Your task to perform on an android device: Open Google Chrome and open the bookmarks view Image 0: 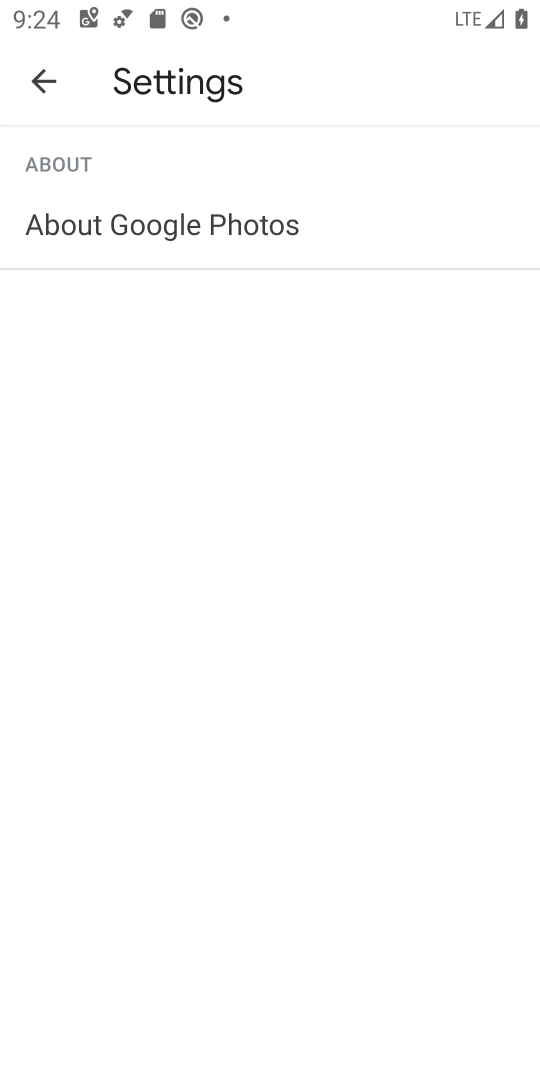
Step 0: drag from (302, 881) to (366, 250)
Your task to perform on an android device: Open Google Chrome and open the bookmarks view Image 1: 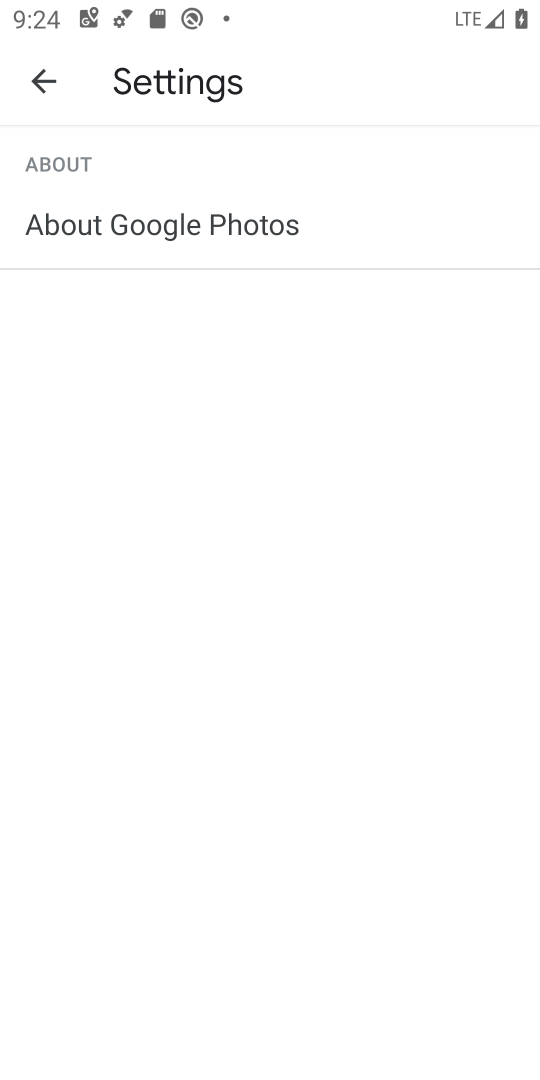
Step 1: press home button
Your task to perform on an android device: Open Google Chrome and open the bookmarks view Image 2: 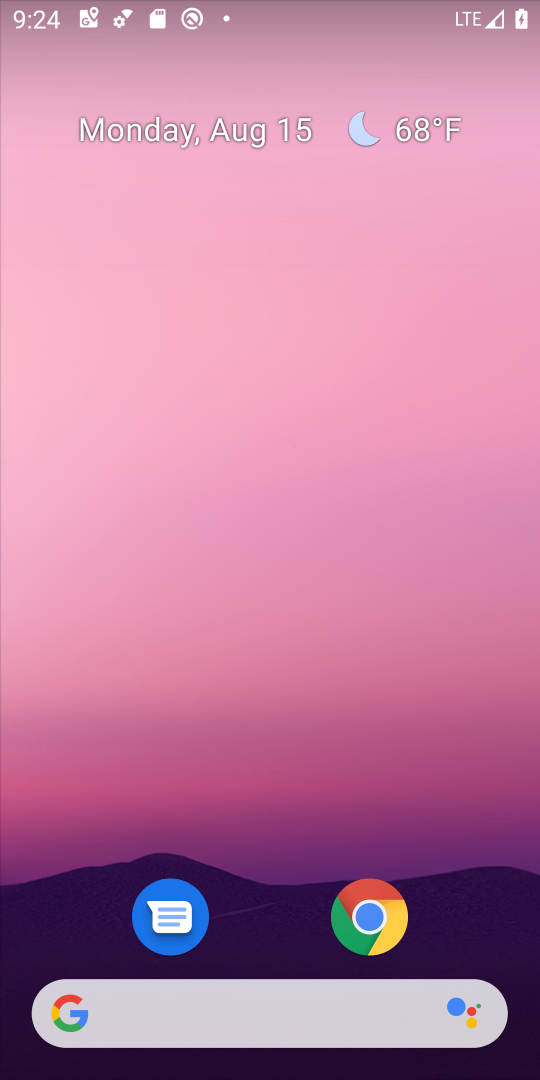
Step 2: click (376, 908)
Your task to perform on an android device: Open Google Chrome and open the bookmarks view Image 3: 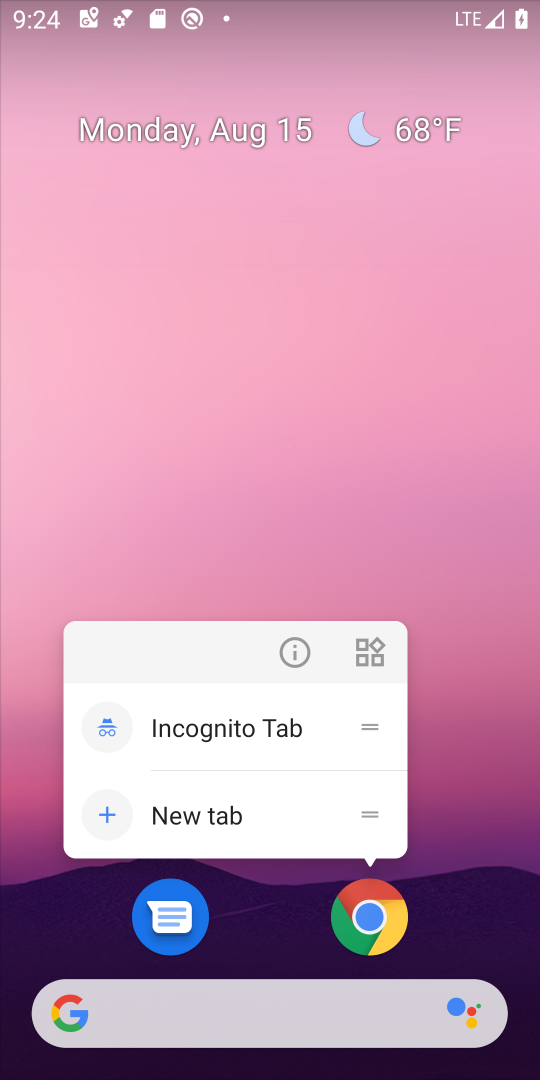
Step 3: click (378, 915)
Your task to perform on an android device: Open Google Chrome and open the bookmarks view Image 4: 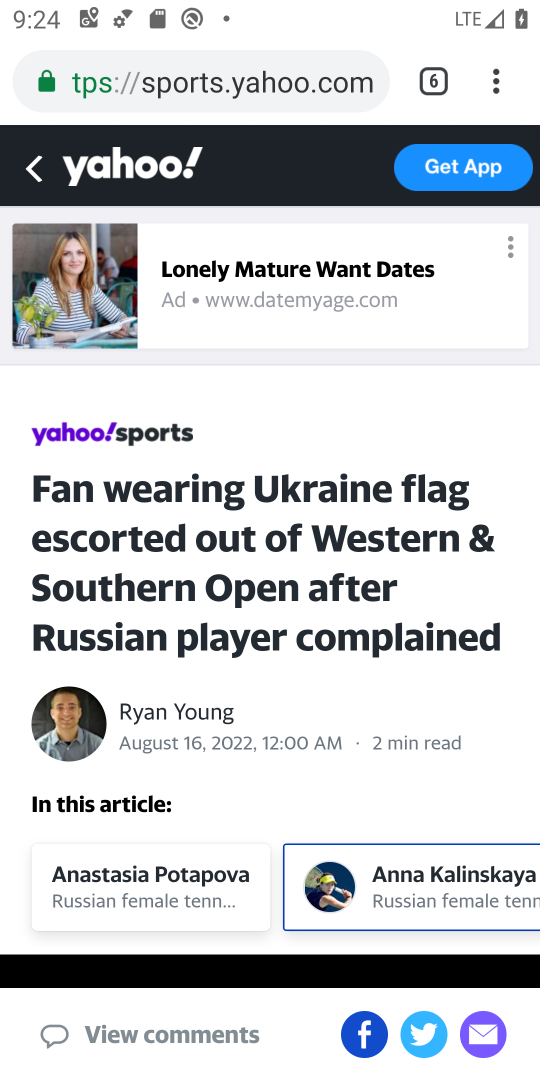
Step 4: click (378, 915)
Your task to perform on an android device: Open Google Chrome and open the bookmarks view Image 5: 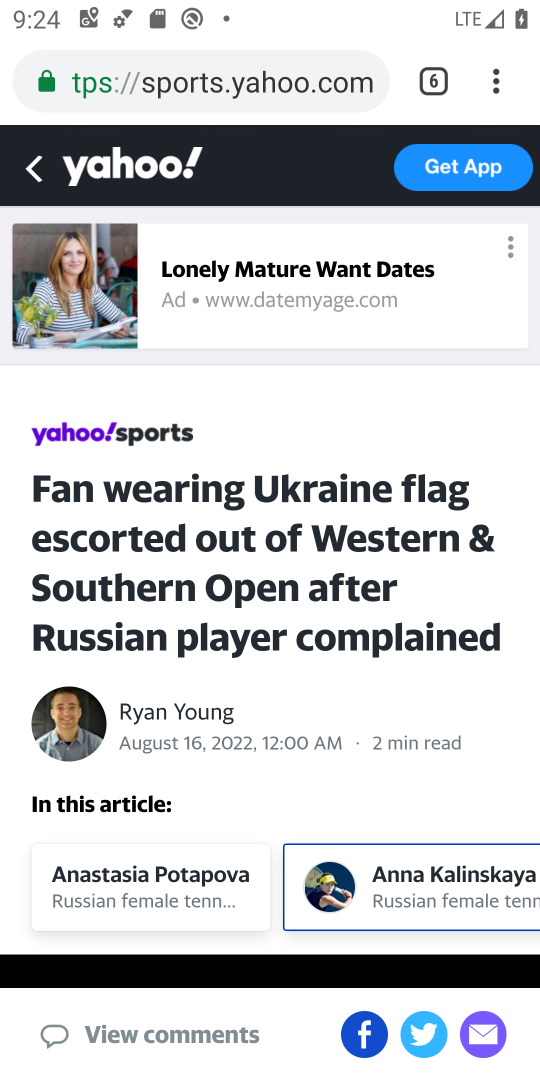
Step 5: press back button
Your task to perform on an android device: Open Google Chrome and open the bookmarks view Image 6: 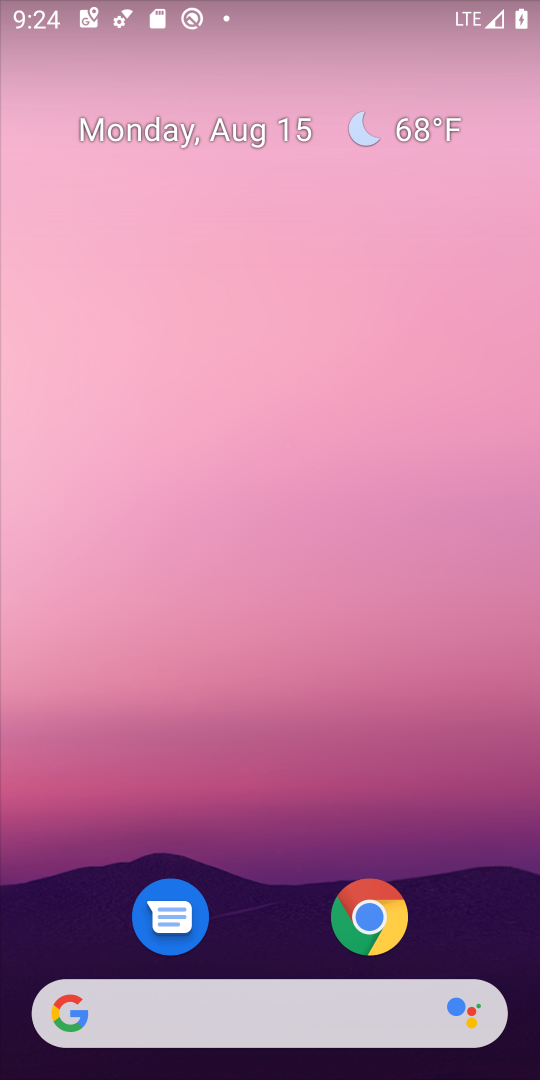
Step 6: click (378, 908)
Your task to perform on an android device: Open Google Chrome and open the bookmarks view Image 7: 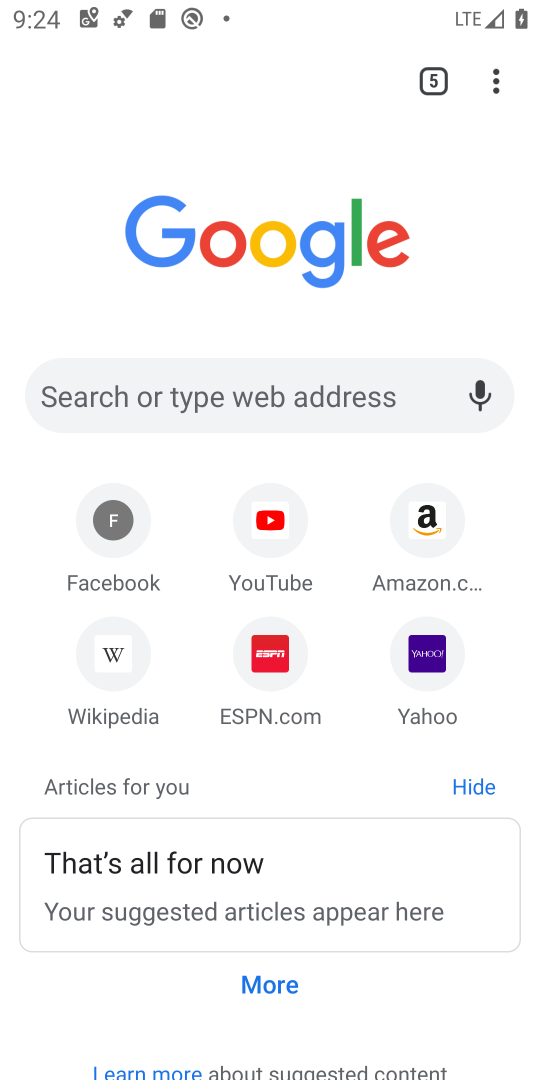
Step 7: click (495, 81)
Your task to perform on an android device: Open Google Chrome and open the bookmarks view Image 8: 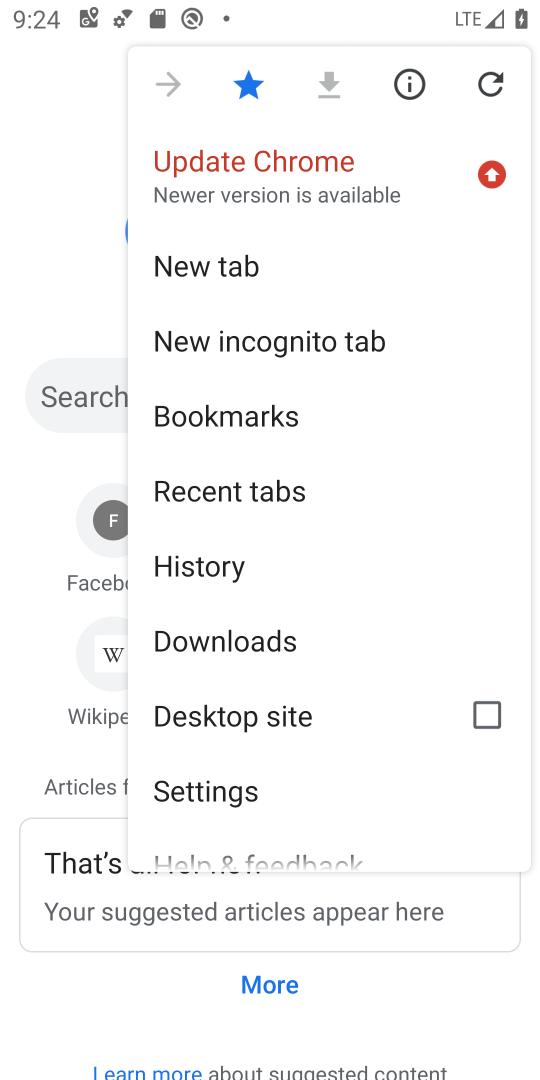
Step 8: click (272, 405)
Your task to perform on an android device: Open Google Chrome and open the bookmarks view Image 9: 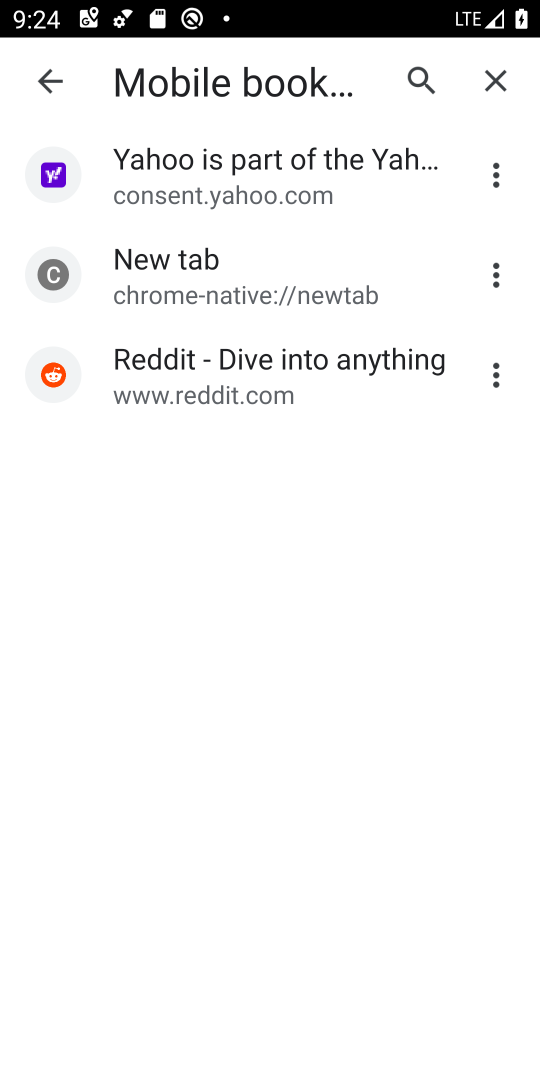
Step 9: task complete